Your task to perform on an android device: Add rayovac triple a to the cart on newegg.com, then select checkout. Image 0: 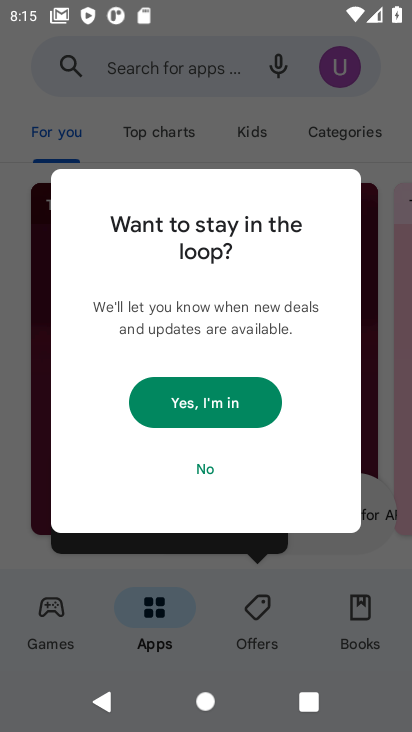
Step 0: press home button
Your task to perform on an android device: Add rayovac triple a to the cart on newegg.com, then select checkout. Image 1: 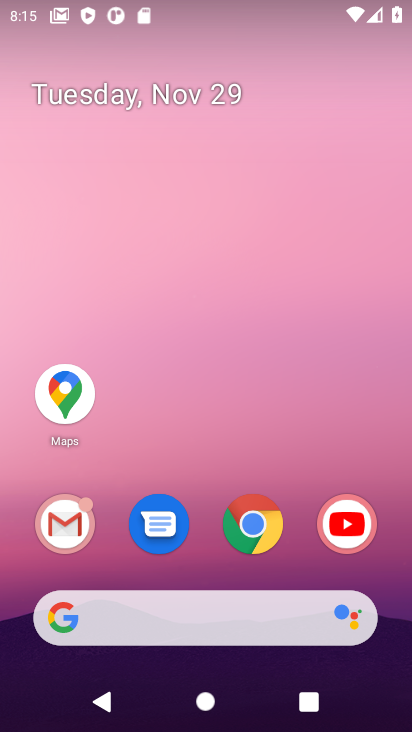
Step 1: click (245, 527)
Your task to perform on an android device: Add rayovac triple a to the cart on newegg.com, then select checkout. Image 2: 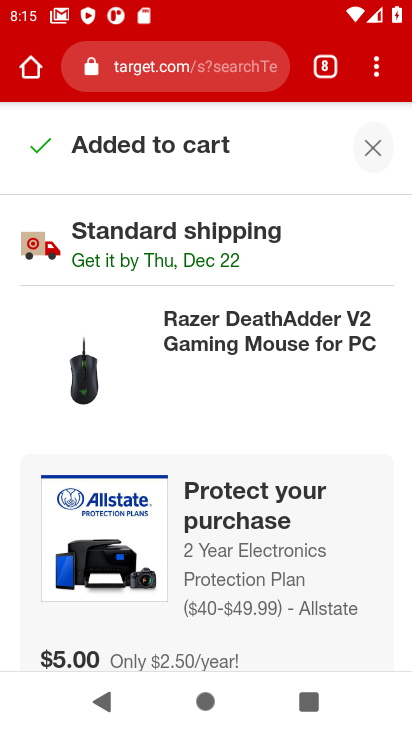
Step 2: click (162, 67)
Your task to perform on an android device: Add rayovac triple a to the cart on newegg.com, then select checkout. Image 3: 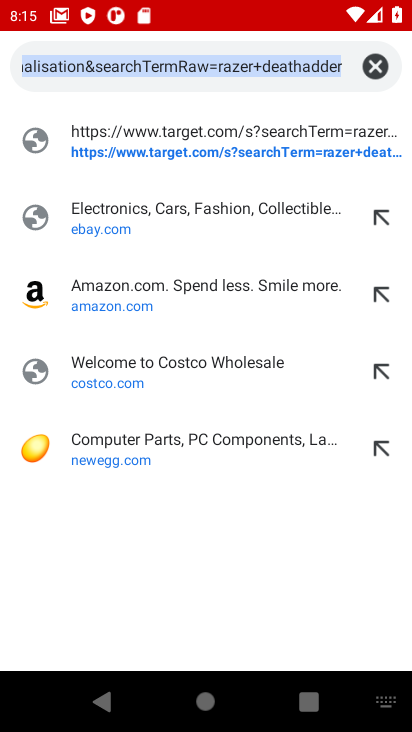
Step 3: click (99, 437)
Your task to perform on an android device: Add rayovac triple a to the cart on newegg.com, then select checkout. Image 4: 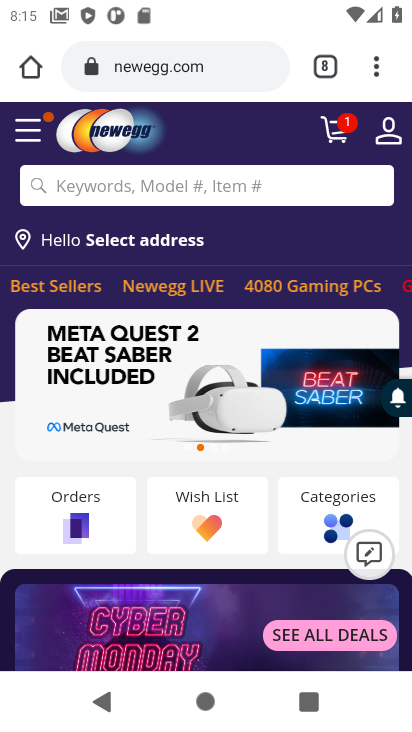
Step 4: click (102, 193)
Your task to perform on an android device: Add rayovac triple a to the cart on newegg.com, then select checkout. Image 5: 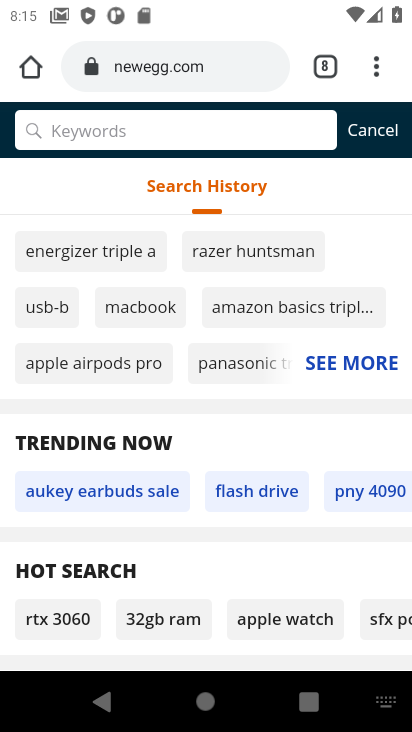
Step 5: type "rayovac triple a"
Your task to perform on an android device: Add rayovac triple a to the cart on newegg.com, then select checkout. Image 6: 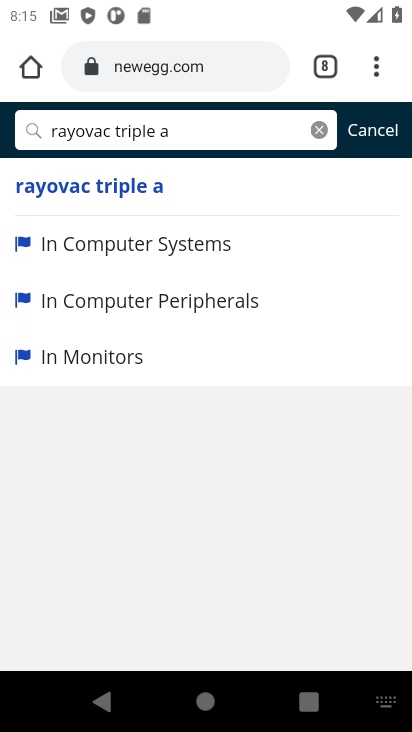
Step 6: click (114, 194)
Your task to perform on an android device: Add rayovac triple a to the cart on newegg.com, then select checkout. Image 7: 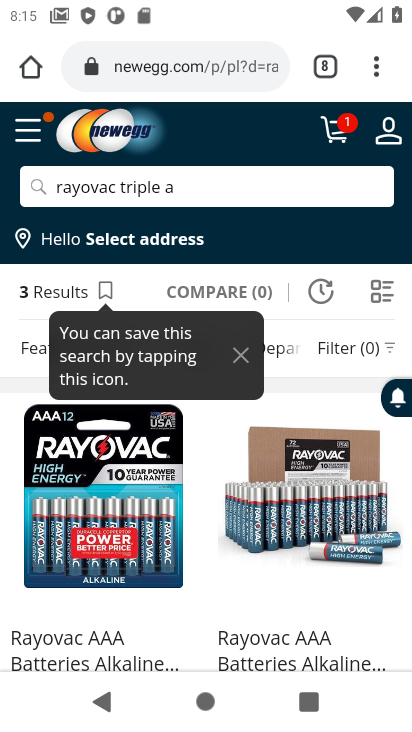
Step 7: drag from (87, 517) to (105, 371)
Your task to perform on an android device: Add rayovac triple a to the cart on newegg.com, then select checkout. Image 8: 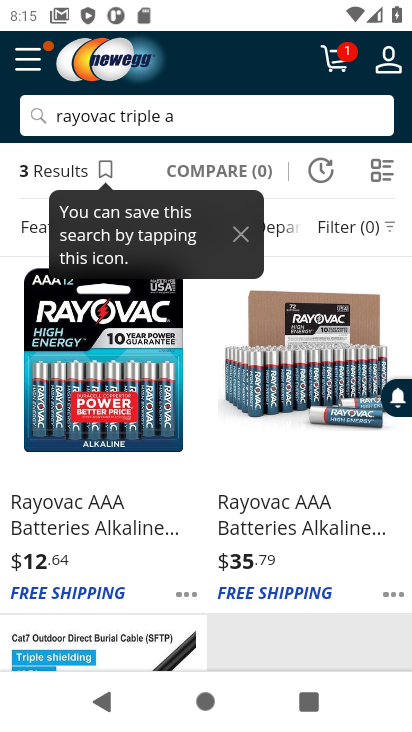
Step 8: click (108, 417)
Your task to perform on an android device: Add rayovac triple a to the cart on newegg.com, then select checkout. Image 9: 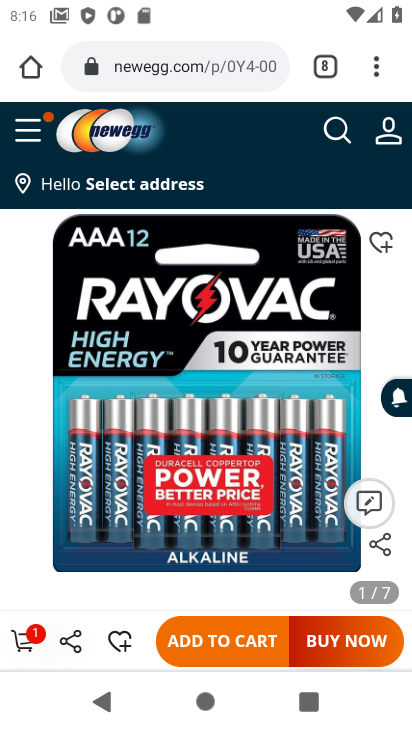
Step 9: click (228, 642)
Your task to perform on an android device: Add rayovac triple a to the cart on newegg.com, then select checkout. Image 10: 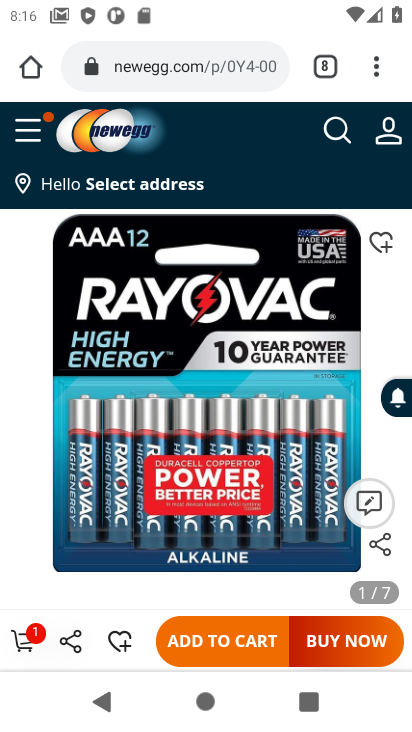
Step 10: click (205, 638)
Your task to perform on an android device: Add rayovac triple a to the cart on newegg.com, then select checkout. Image 11: 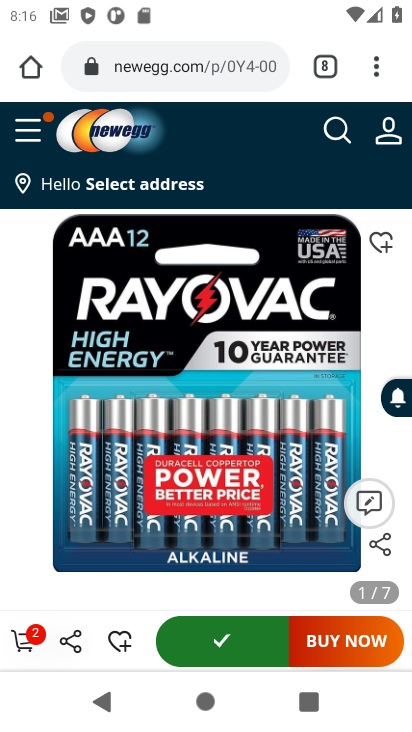
Step 11: click (19, 641)
Your task to perform on an android device: Add rayovac triple a to the cart on newegg.com, then select checkout. Image 12: 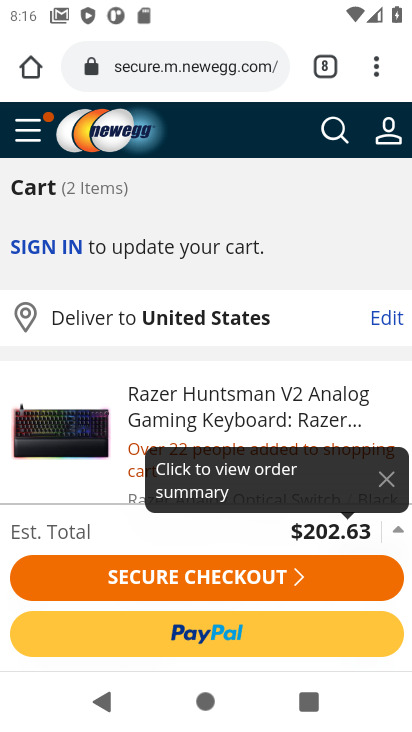
Step 12: click (172, 583)
Your task to perform on an android device: Add rayovac triple a to the cart on newegg.com, then select checkout. Image 13: 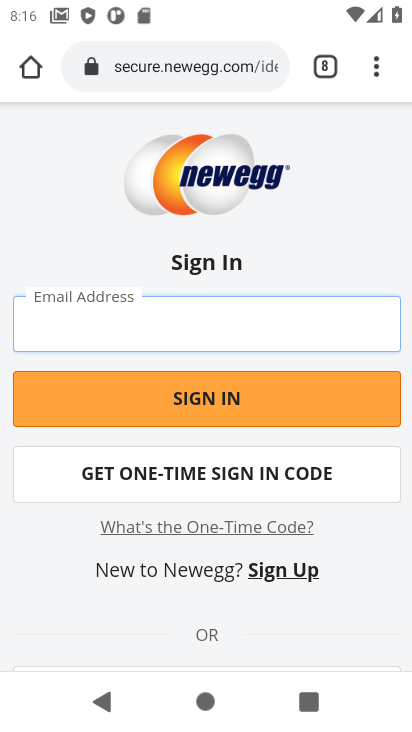
Step 13: task complete